Your task to perform on an android device: add a label to a message in the gmail app Image 0: 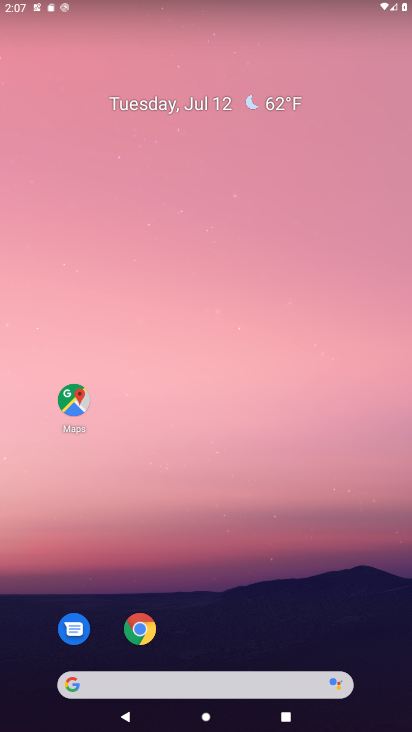
Step 0: drag from (216, 649) to (263, 16)
Your task to perform on an android device: add a label to a message in the gmail app Image 1: 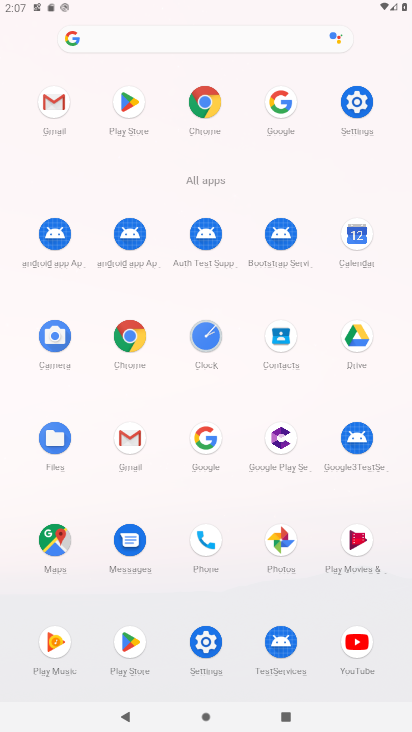
Step 1: click (50, 95)
Your task to perform on an android device: add a label to a message in the gmail app Image 2: 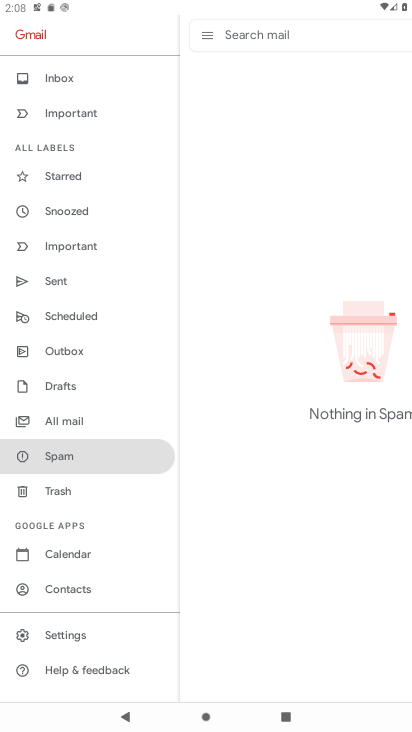
Step 2: task complete